Your task to perform on an android device: Open settings Image 0: 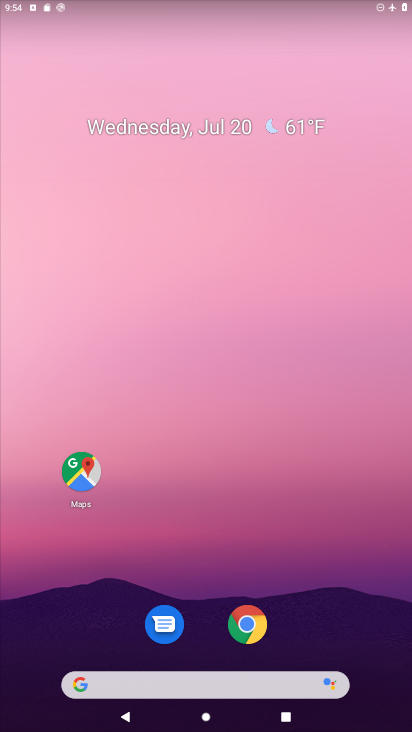
Step 0: drag from (190, 569) to (190, 199)
Your task to perform on an android device: Open settings Image 1: 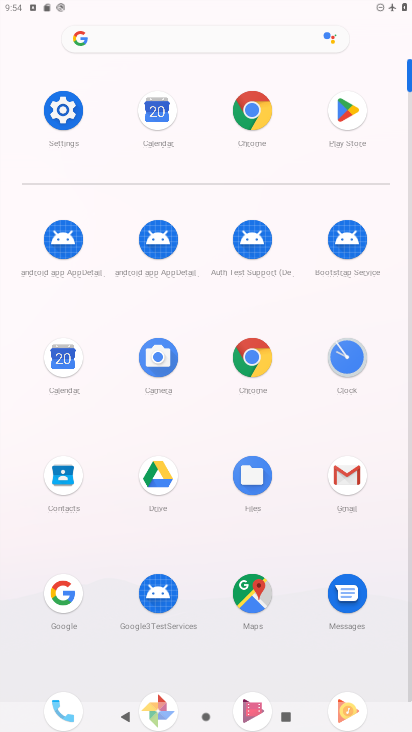
Step 1: click (71, 133)
Your task to perform on an android device: Open settings Image 2: 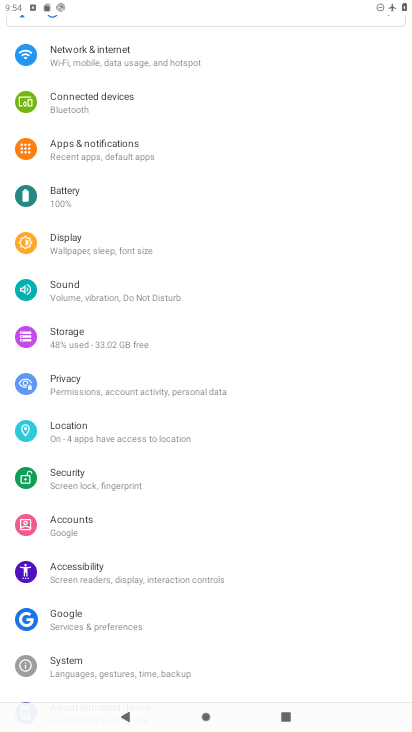
Step 2: task complete